Your task to perform on an android device: Open wifi settings Image 0: 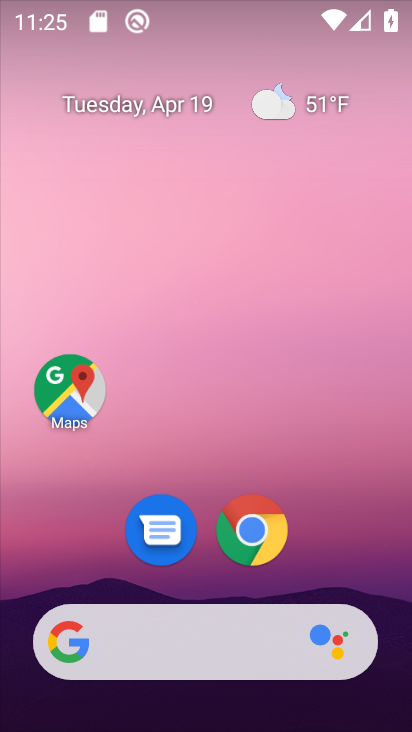
Step 0: drag from (252, 331) to (332, 55)
Your task to perform on an android device: Open wifi settings Image 1: 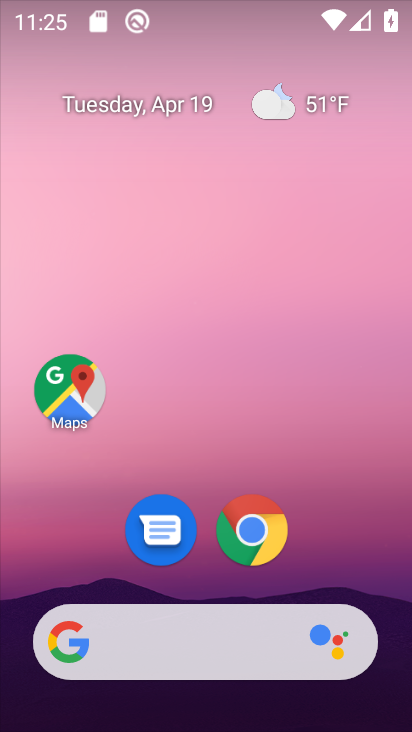
Step 1: drag from (289, 327) to (331, 104)
Your task to perform on an android device: Open wifi settings Image 2: 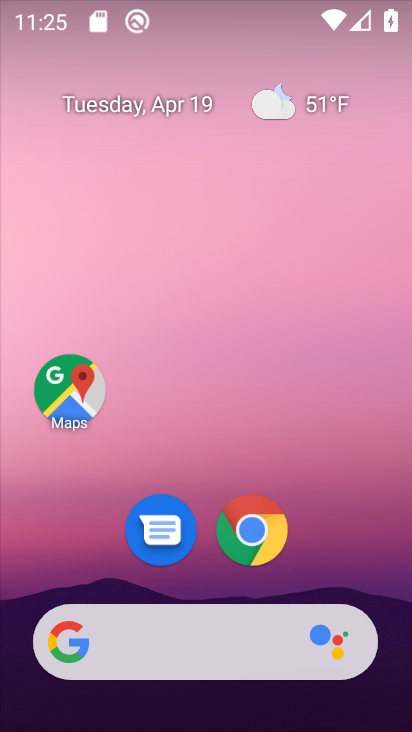
Step 2: drag from (263, 286) to (318, 78)
Your task to perform on an android device: Open wifi settings Image 3: 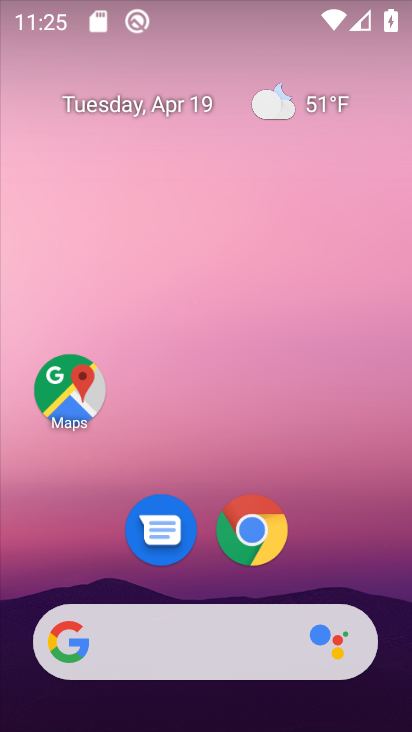
Step 3: drag from (223, 647) to (361, 54)
Your task to perform on an android device: Open wifi settings Image 4: 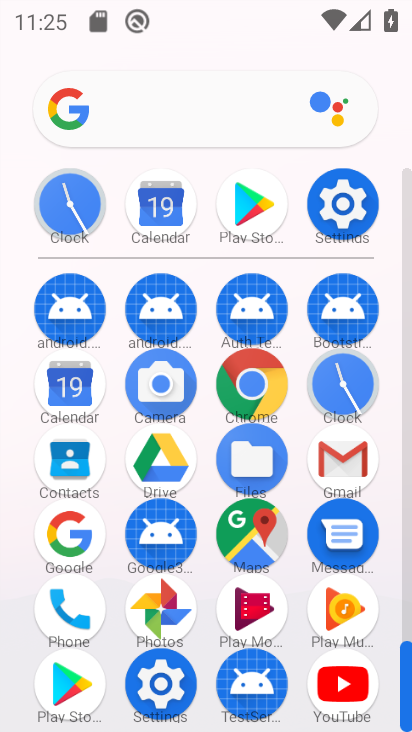
Step 4: click (340, 207)
Your task to perform on an android device: Open wifi settings Image 5: 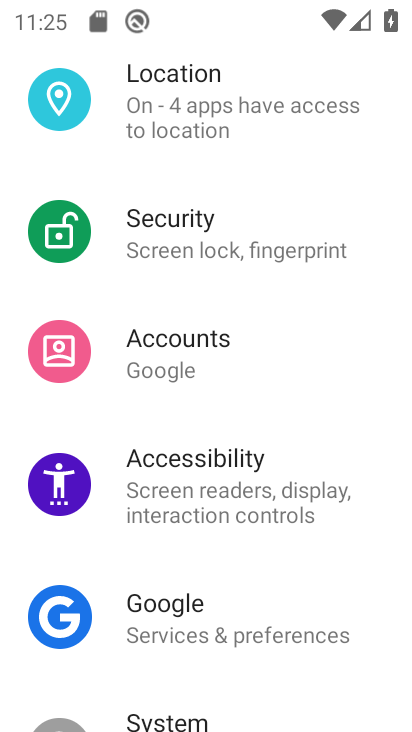
Step 5: drag from (327, 171) to (287, 551)
Your task to perform on an android device: Open wifi settings Image 6: 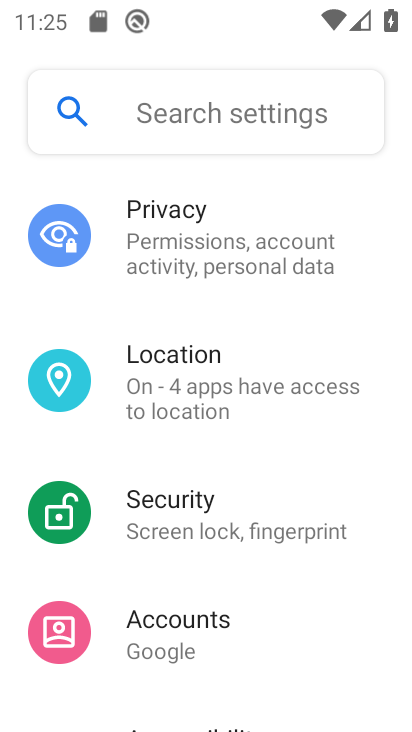
Step 6: drag from (305, 174) to (262, 585)
Your task to perform on an android device: Open wifi settings Image 7: 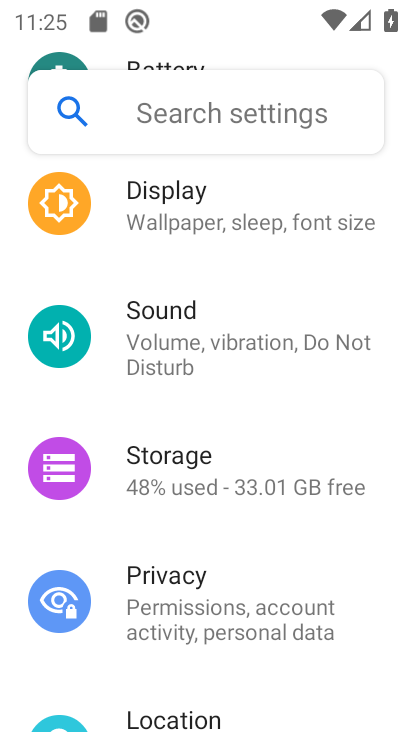
Step 7: drag from (319, 195) to (260, 658)
Your task to perform on an android device: Open wifi settings Image 8: 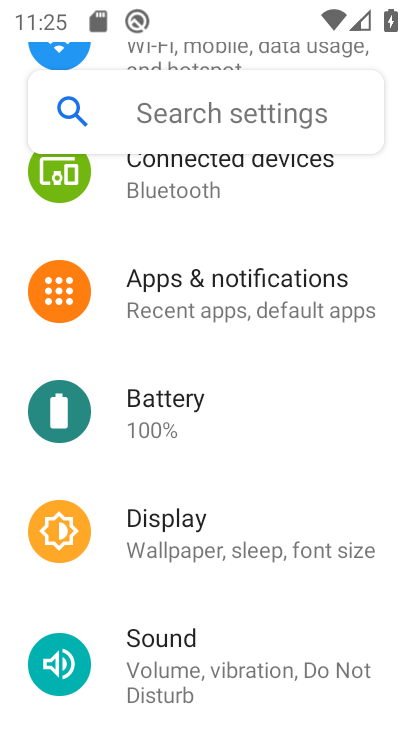
Step 8: drag from (308, 218) to (256, 623)
Your task to perform on an android device: Open wifi settings Image 9: 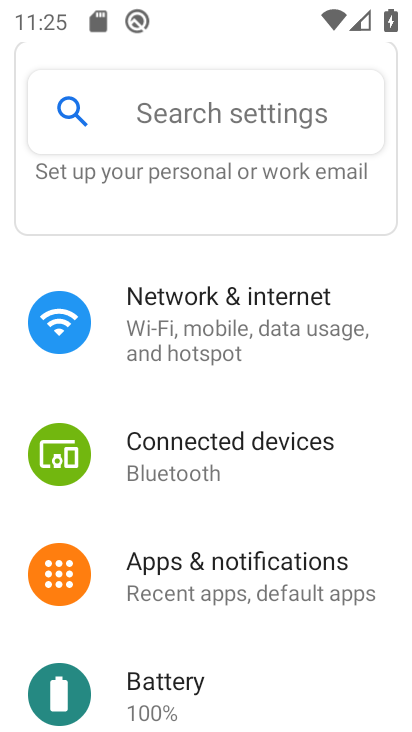
Step 9: click (264, 309)
Your task to perform on an android device: Open wifi settings Image 10: 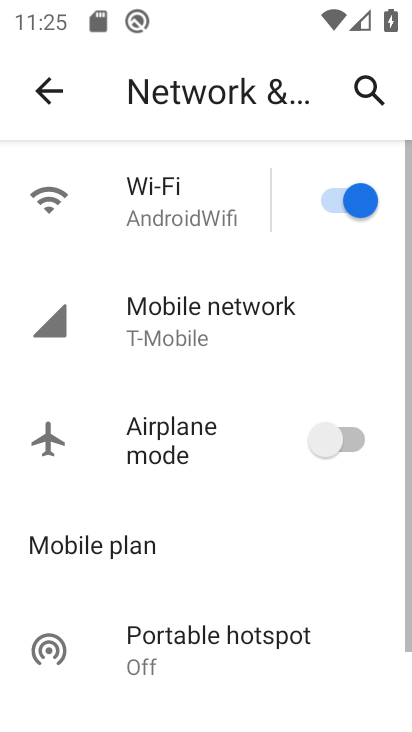
Step 10: click (184, 210)
Your task to perform on an android device: Open wifi settings Image 11: 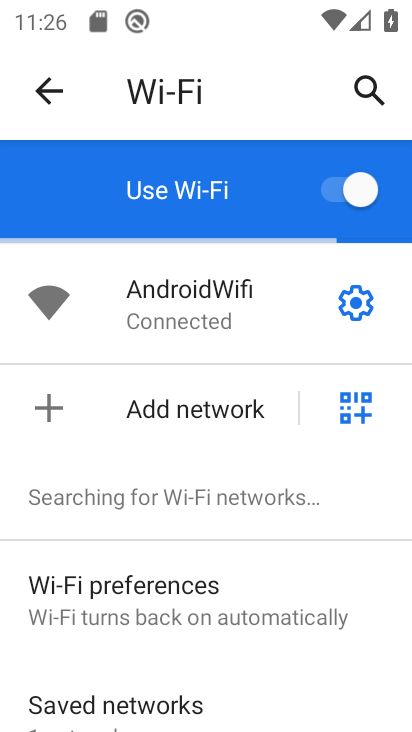
Step 11: task complete